Your task to perform on an android device: read, delete, or share a saved page in the chrome app Image 0: 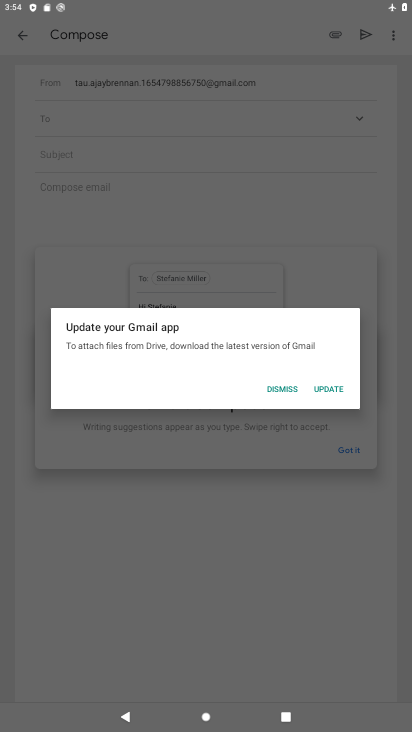
Step 0: press home button
Your task to perform on an android device: read, delete, or share a saved page in the chrome app Image 1: 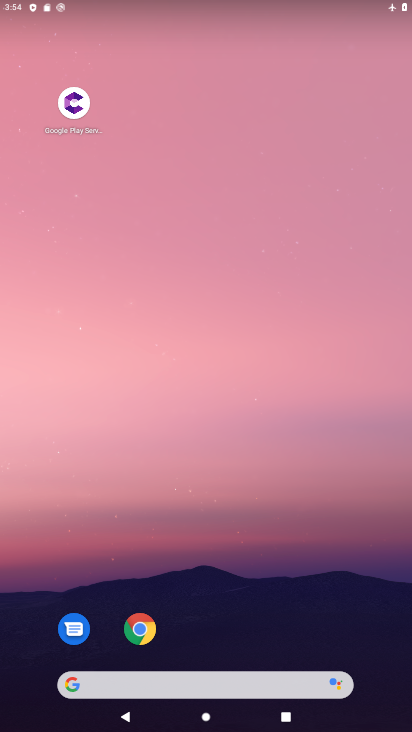
Step 1: drag from (242, 644) to (320, 57)
Your task to perform on an android device: read, delete, or share a saved page in the chrome app Image 2: 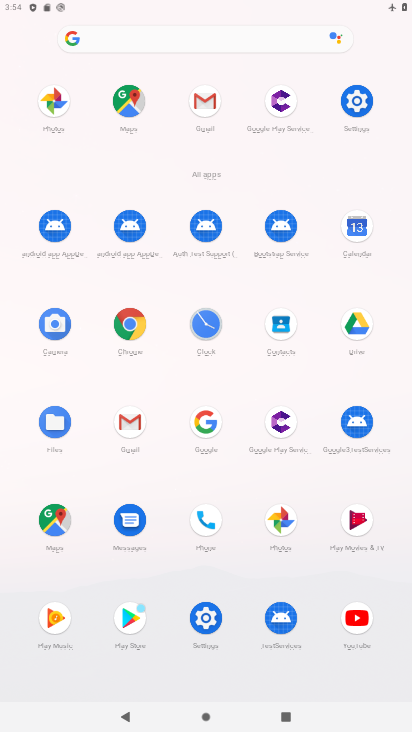
Step 2: click (128, 316)
Your task to perform on an android device: read, delete, or share a saved page in the chrome app Image 3: 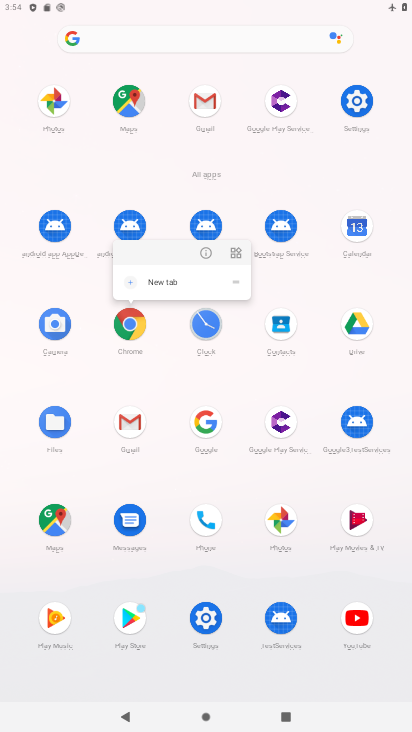
Step 3: click (128, 316)
Your task to perform on an android device: read, delete, or share a saved page in the chrome app Image 4: 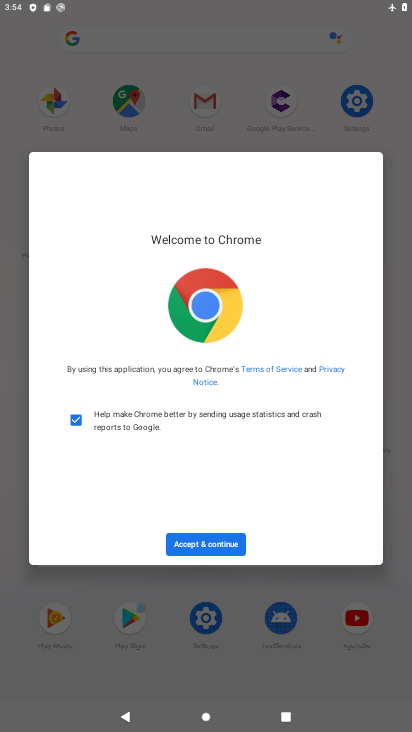
Step 4: click (221, 547)
Your task to perform on an android device: read, delete, or share a saved page in the chrome app Image 5: 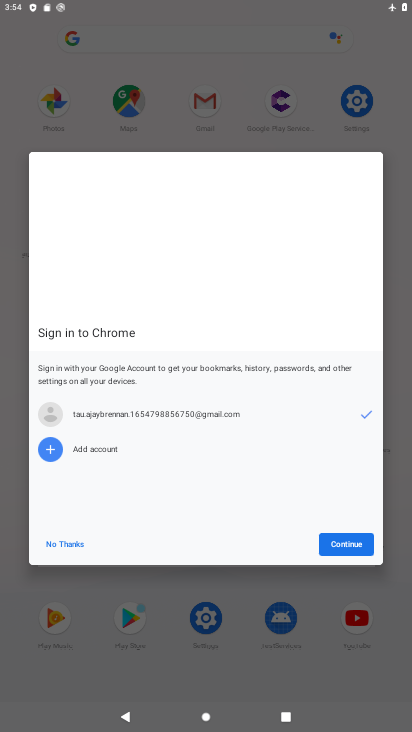
Step 5: click (334, 541)
Your task to perform on an android device: read, delete, or share a saved page in the chrome app Image 6: 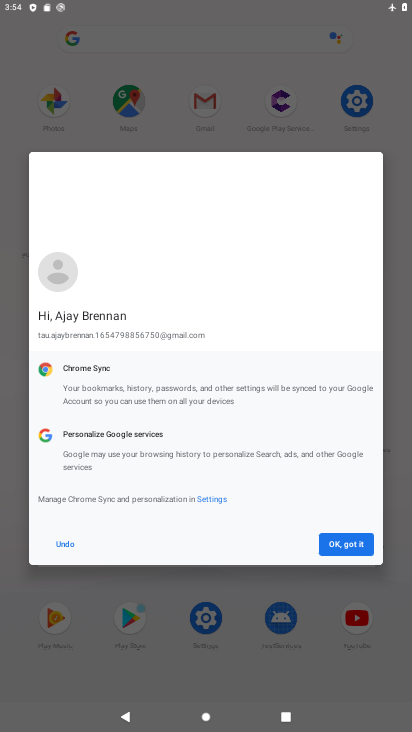
Step 6: click (334, 541)
Your task to perform on an android device: read, delete, or share a saved page in the chrome app Image 7: 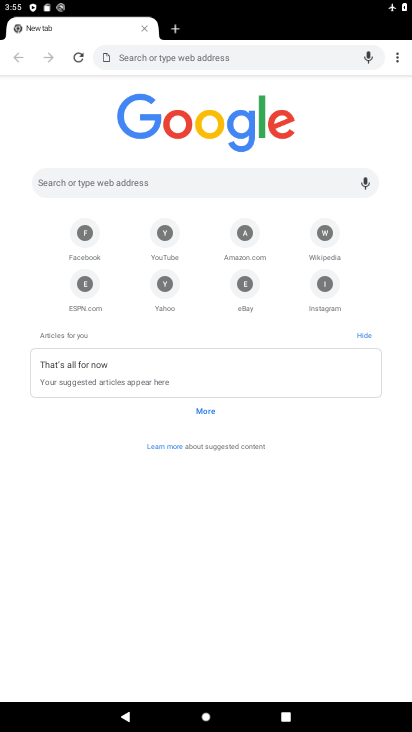
Step 7: drag from (399, 49) to (349, 201)
Your task to perform on an android device: read, delete, or share a saved page in the chrome app Image 8: 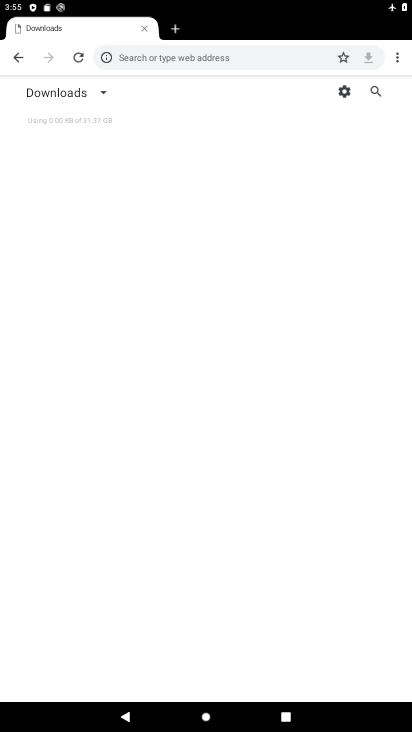
Step 8: click (83, 92)
Your task to perform on an android device: read, delete, or share a saved page in the chrome app Image 9: 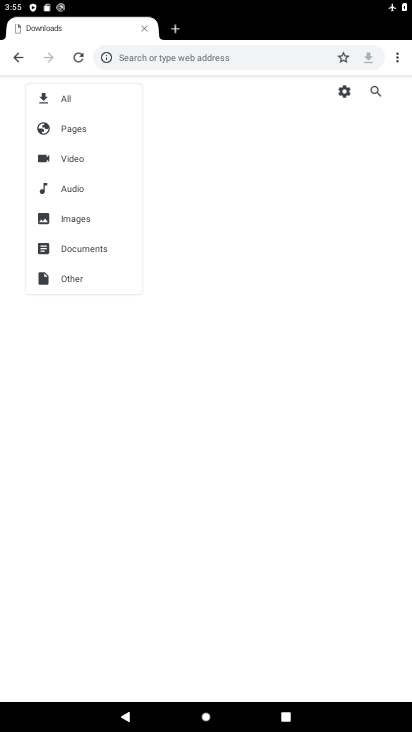
Step 9: click (73, 129)
Your task to perform on an android device: read, delete, or share a saved page in the chrome app Image 10: 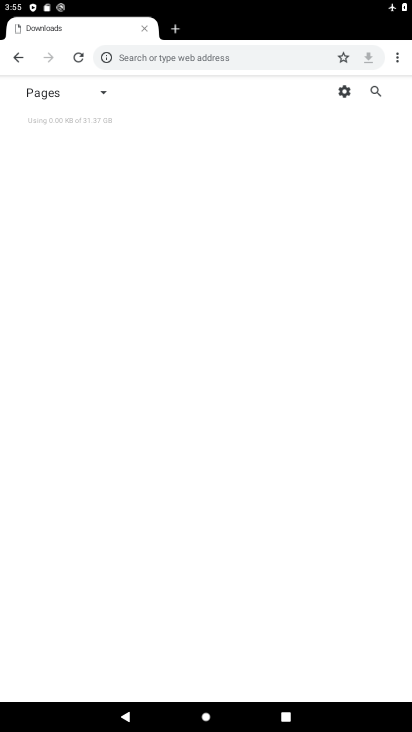
Step 10: task complete